Your task to perform on an android device: See recent photos Image 0: 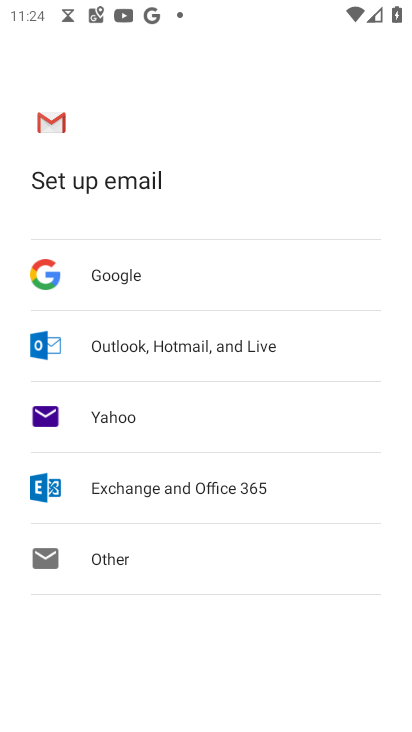
Step 0: press home button
Your task to perform on an android device: See recent photos Image 1: 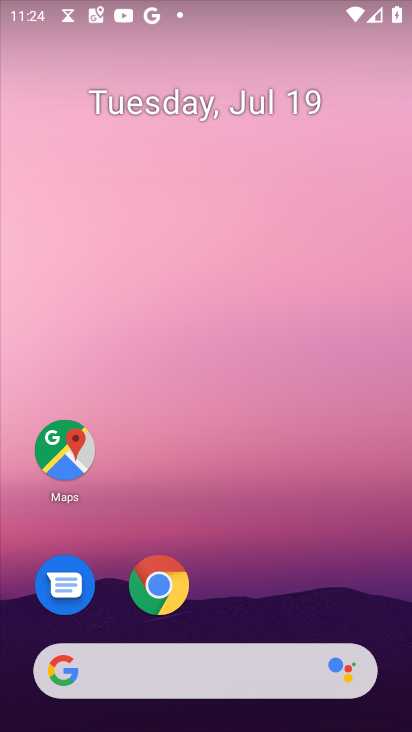
Step 1: drag from (204, 646) to (330, 159)
Your task to perform on an android device: See recent photos Image 2: 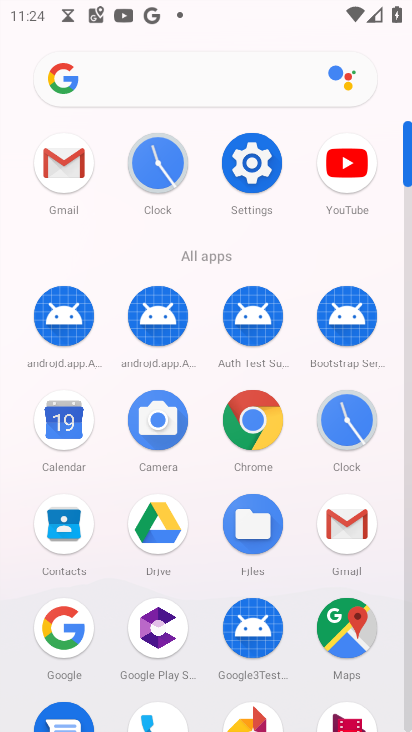
Step 2: drag from (202, 549) to (342, 123)
Your task to perform on an android device: See recent photos Image 3: 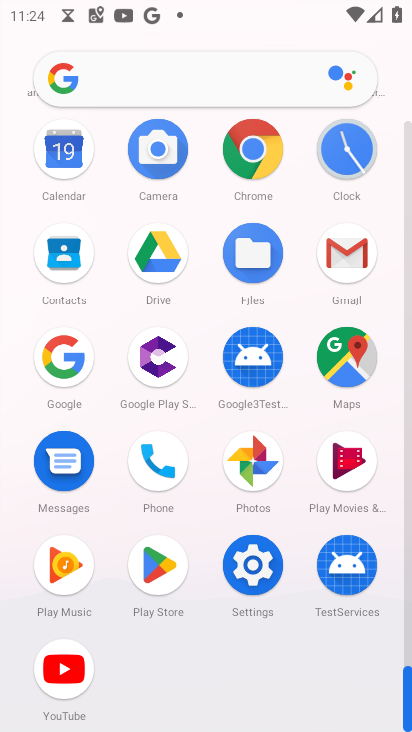
Step 3: click (250, 461)
Your task to perform on an android device: See recent photos Image 4: 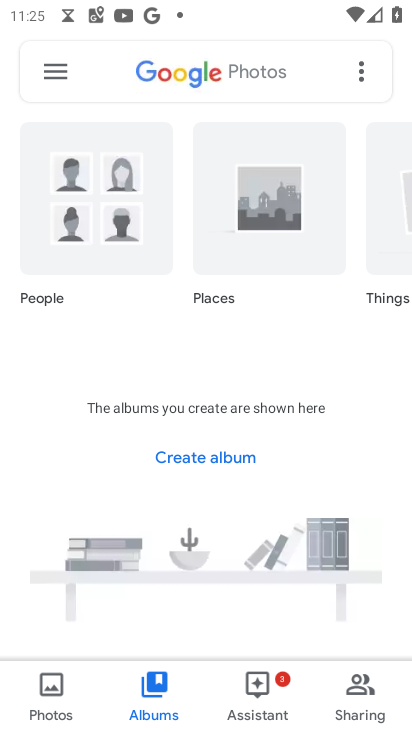
Step 4: task complete